Your task to perform on an android device: open a bookmark in the chrome app Image 0: 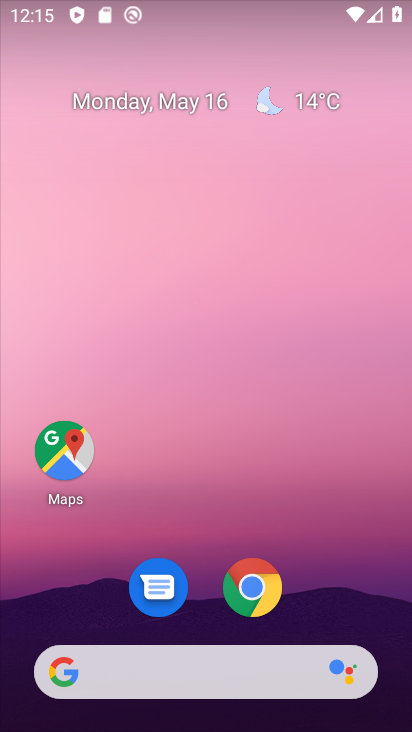
Step 0: click (252, 587)
Your task to perform on an android device: open a bookmark in the chrome app Image 1: 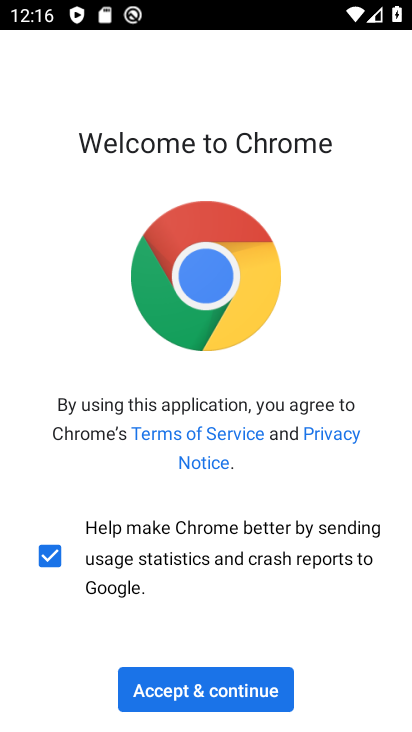
Step 1: click (227, 697)
Your task to perform on an android device: open a bookmark in the chrome app Image 2: 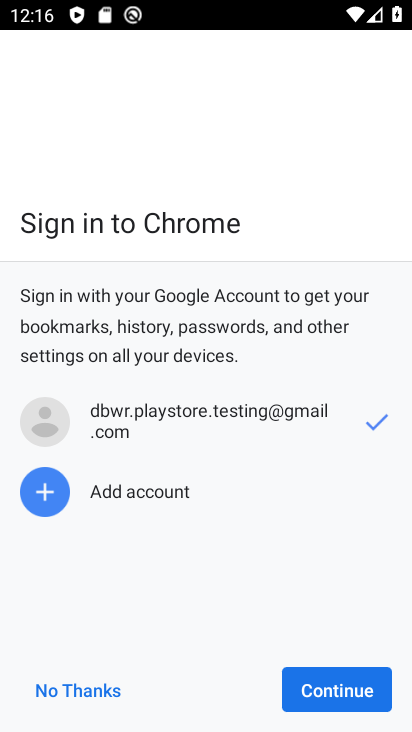
Step 2: click (324, 697)
Your task to perform on an android device: open a bookmark in the chrome app Image 3: 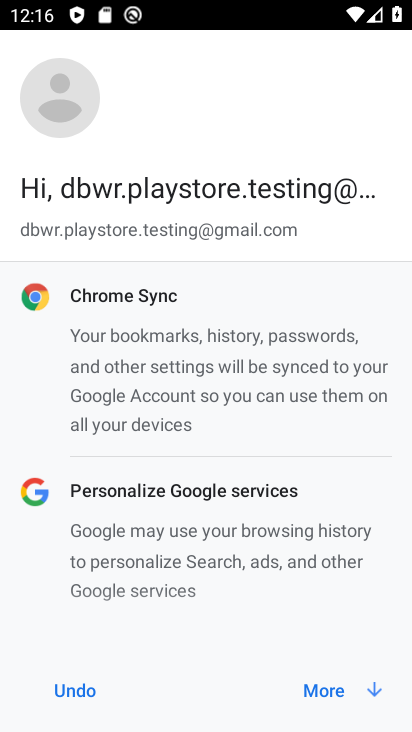
Step 3: click (324, 692)
Your task to perform on an android device: open a bookmark in the chrome app Image 4: 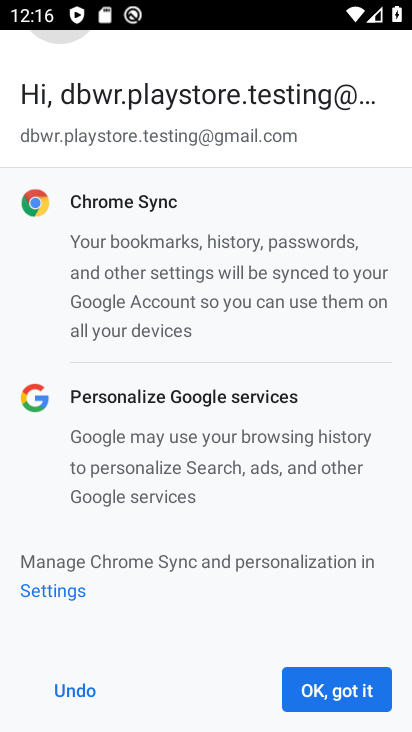
Step 4: click (324, 692)
Your task to perform on an android device: open a bookmark in the chrome app Image 5: 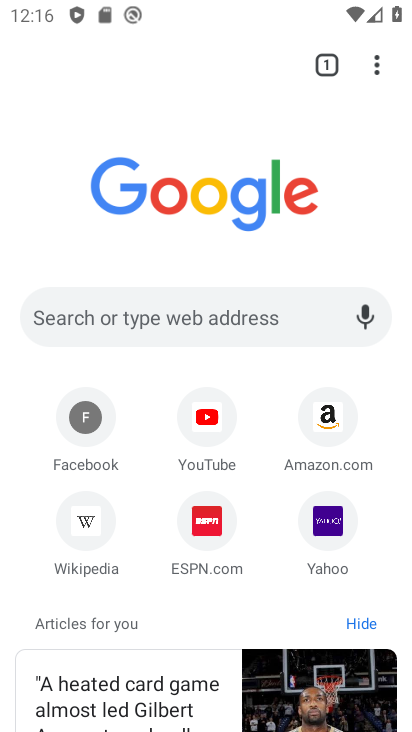
Step 5: click (374, 74)
Your task to perform on an android device: open a bookmark in the chrome app Image 6: 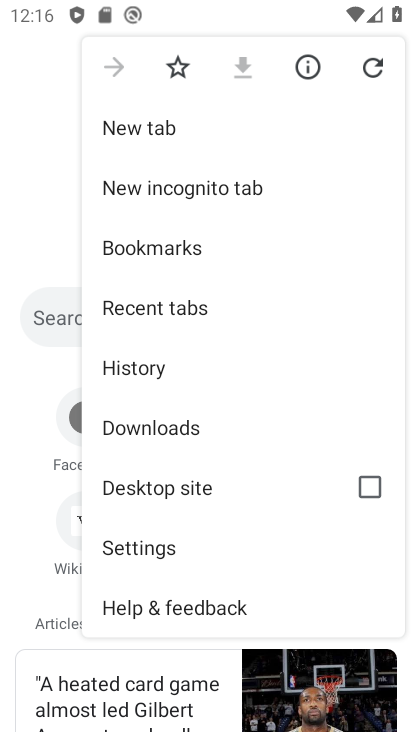
Step 6: click (179, 246)
Your task to perform on an android device: open a bookmark in the chrome app Image 7: 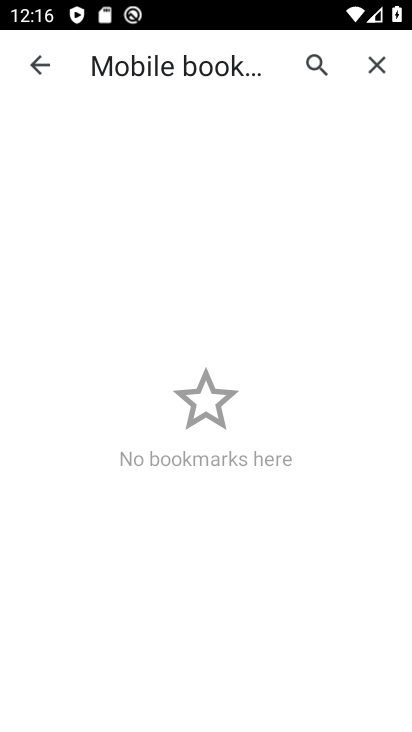
Step 7: task complete